Your task to perform on an android device: turn off picture-in-picture Image 0: 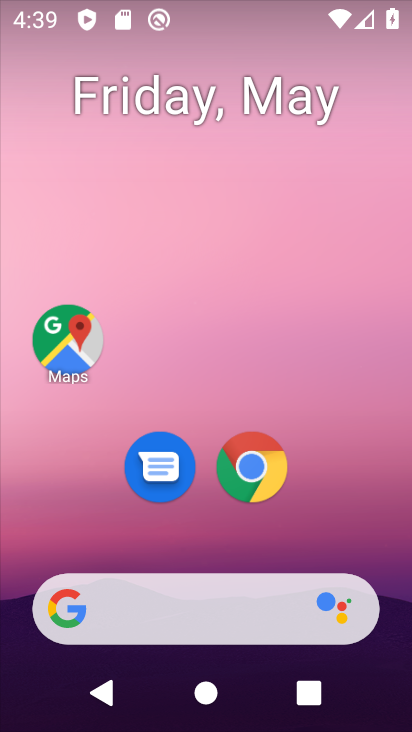
Step 0: click (266, 462)
Your task to perform on an android device: turn off picture-in-picture Image 1: 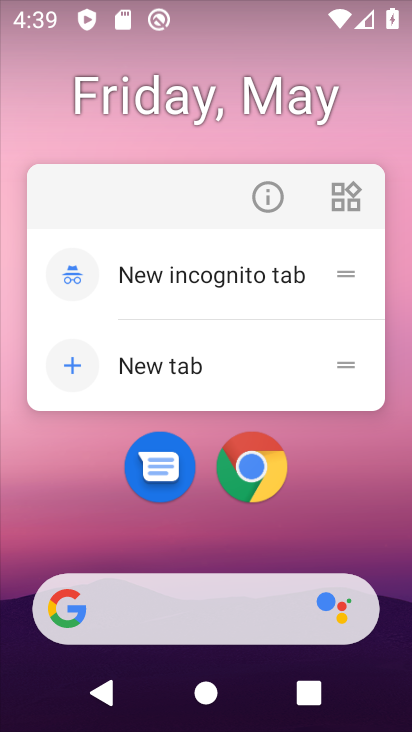
Step 1: click (282, 200)
Your task to perform on an android device: turn off picture-in-picture Image 2: 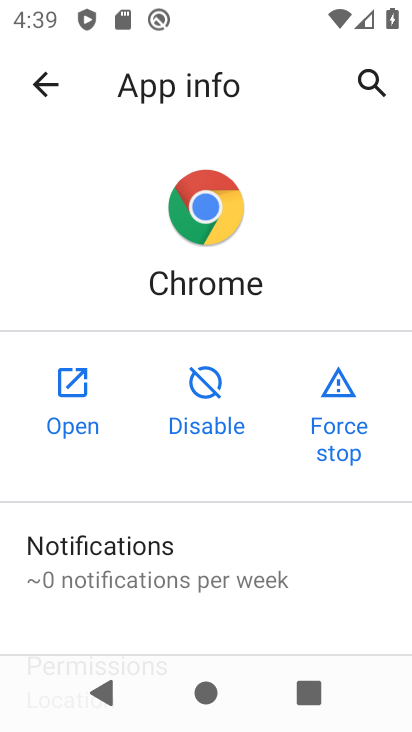
Step 2: drag from (224, 521) to (359, 66)
Your task to perform on an android device: turn off picture-in-picture Image 3: 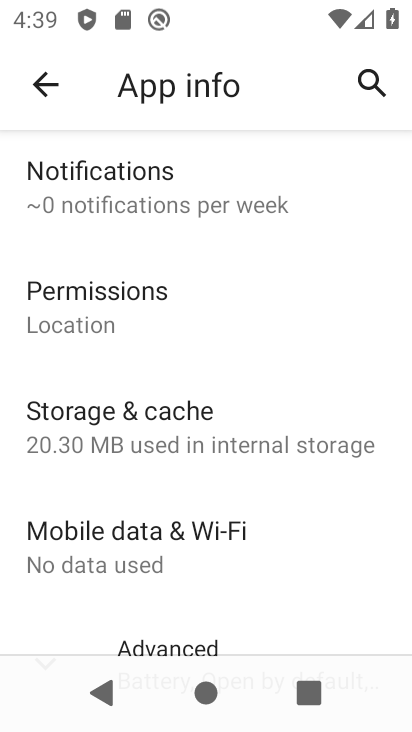
Step 3: drag from (266, 565) to (375, 110)
Your task to perform on an android device: turn off picture-in-picture Image 4: 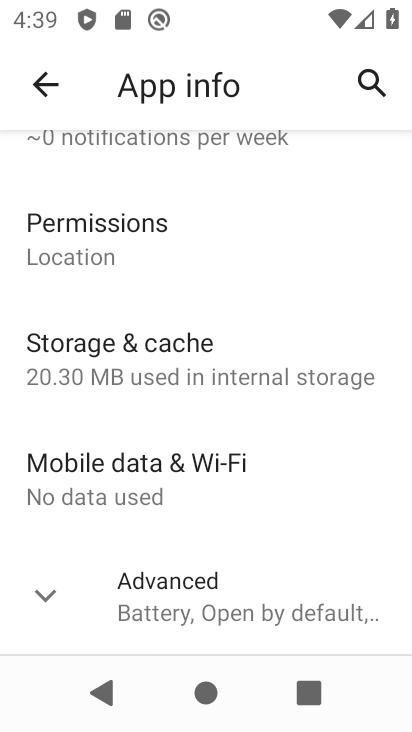
Step 4: click (104, 628)
Your task to perform on an android device: turn off picture-in-picture Image 5: 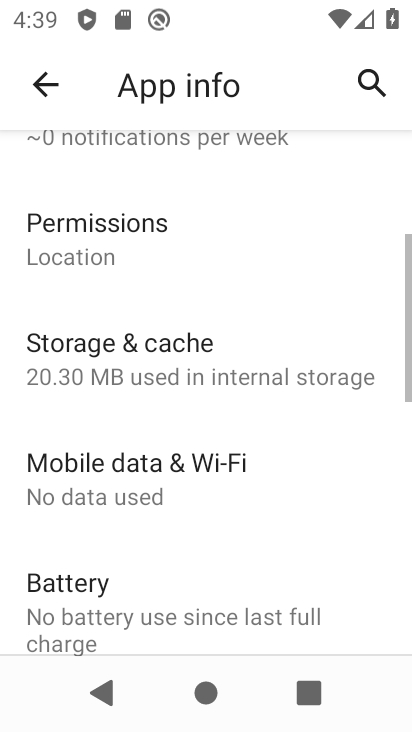
Step 5: drag from (308, 589) to (397, 125)
Your task to perform on an android device: turn off picture-in-picture Image 6: 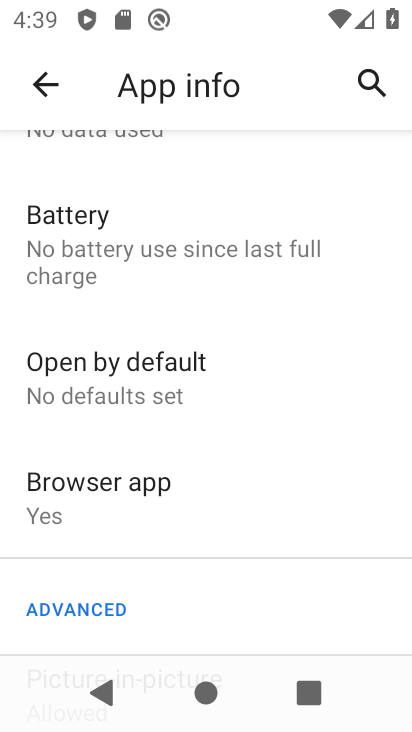
Step 6: drag from (208, 544) to (327, 120)
Your task to perform on an android device: turn off picture-in-picture Image 7: 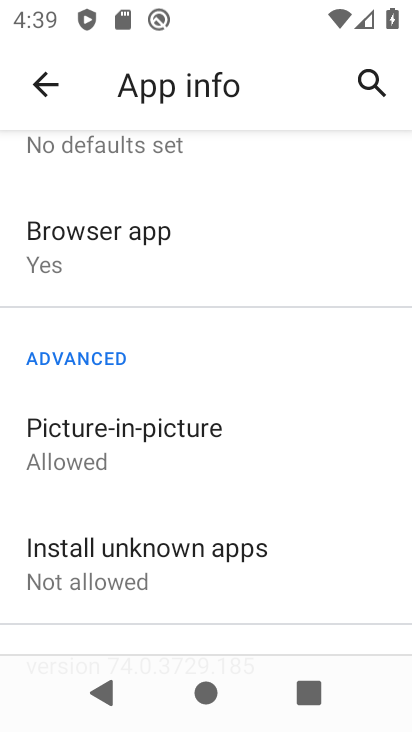
Step 7: drag from (221, 596) to (392, 290)
Your task to perform on an android device: turn off picture-in-picture Image 8: 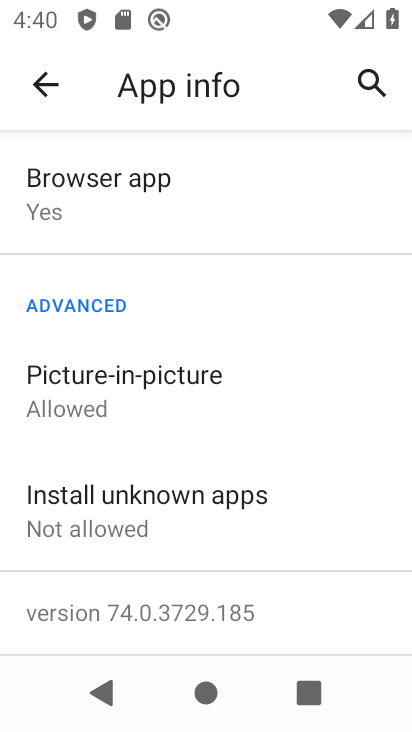
Step 8: click (156, 395)
Your task to perform on an android device: turn off picture-in-picture Image 9: 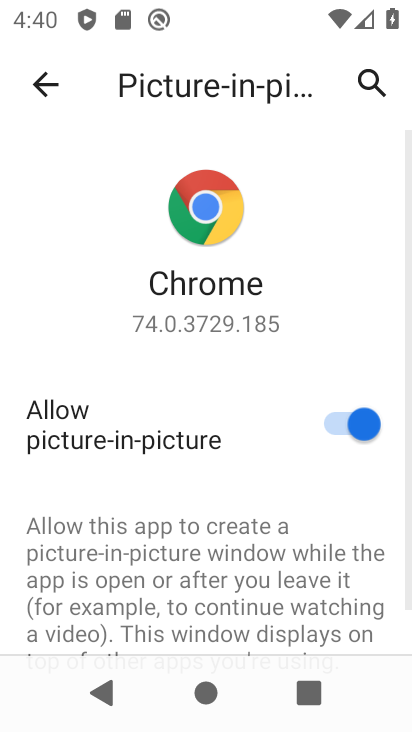
Step 9: click (343, 423)
Your task to perform on an android device: turn off picture-in-picture Image 10: 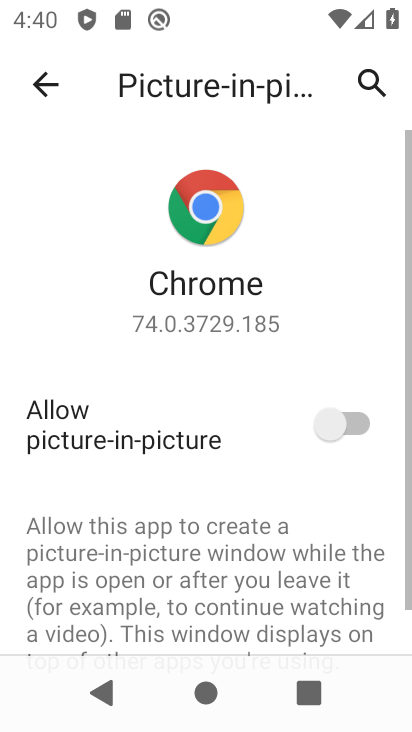
Step 10: task complete